Your task to perform on an android device: Add "usb-c to usb-b" to the cart on walmart.com, then select checkout. Image 0: 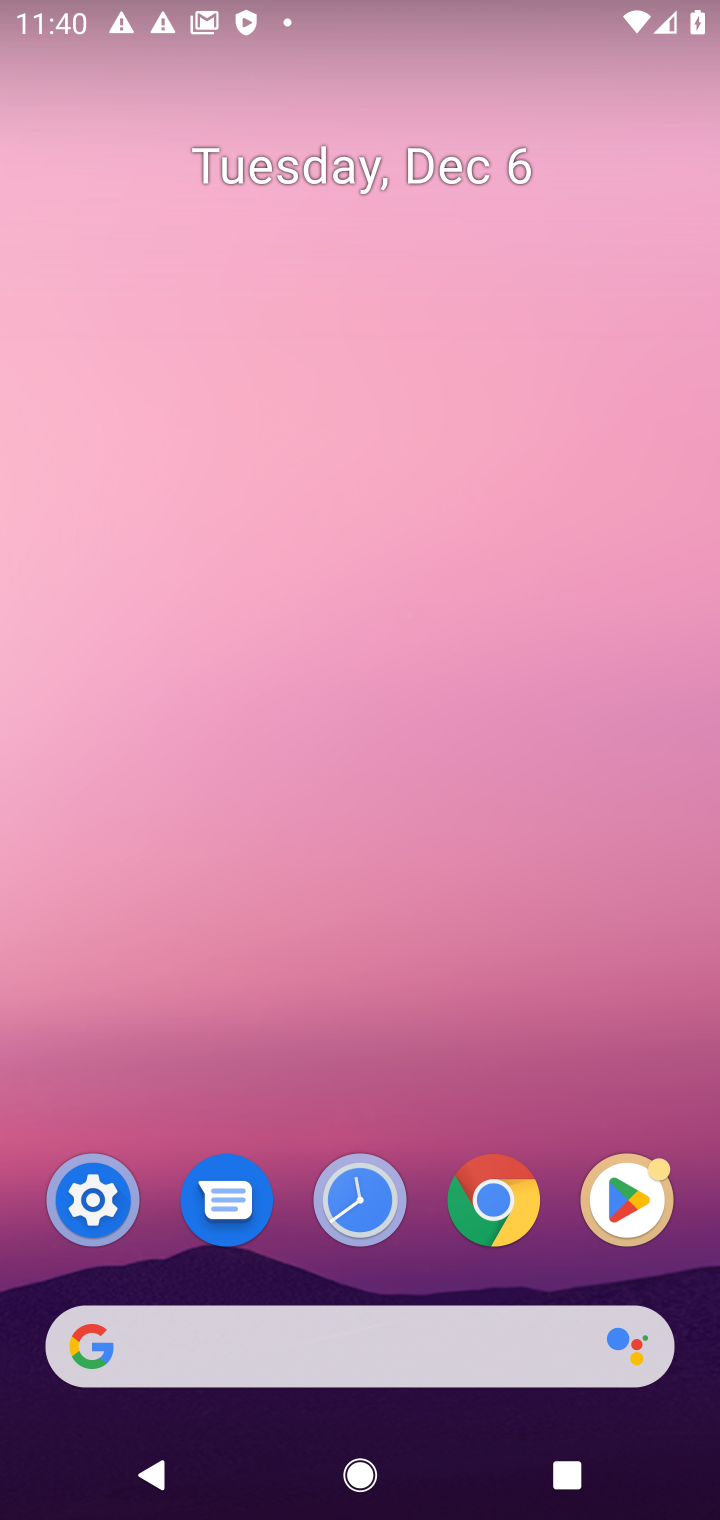
Step 0: click (327, 1374)
Your task to perform on an android device: Add "usb-c to usb-b" to the cart on walmart.com, then select checkout. Image 1: 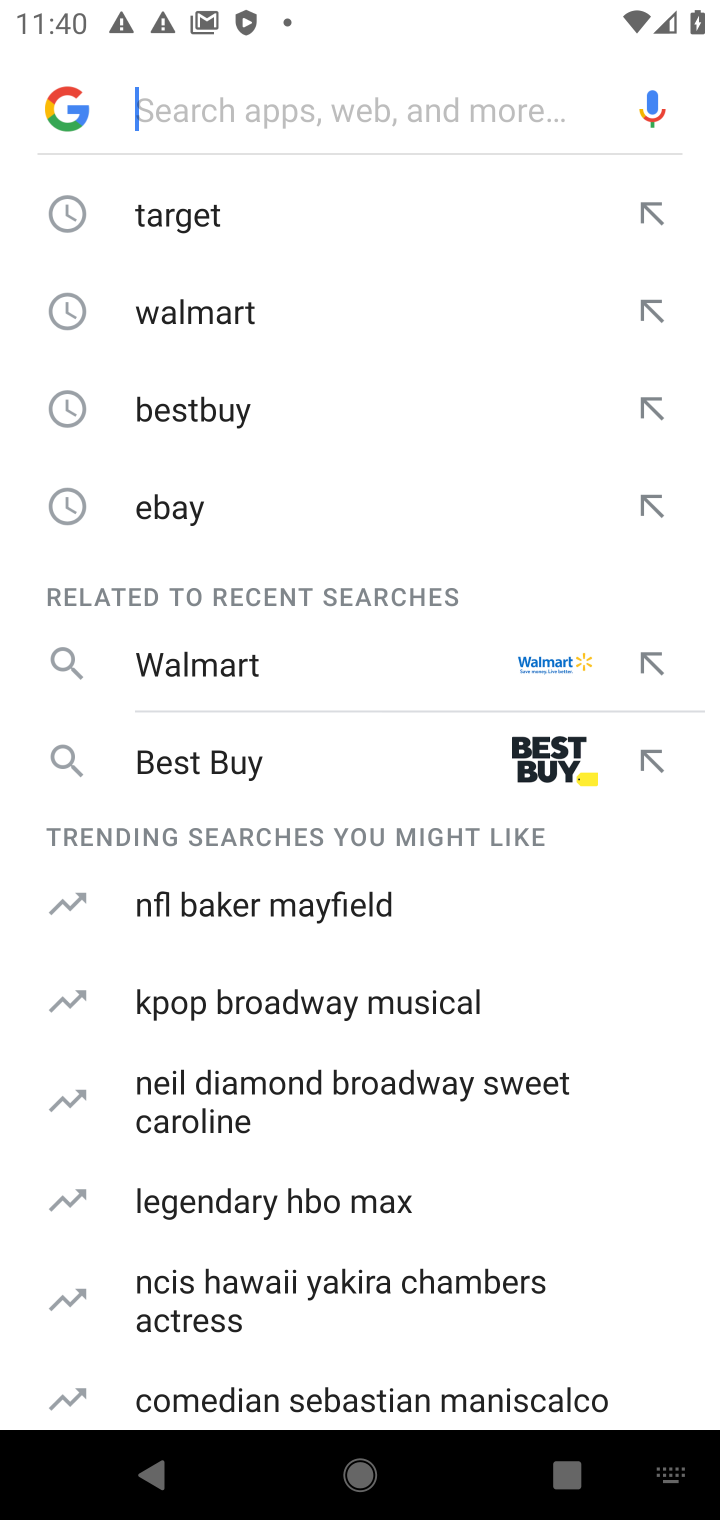
Step 1: type "walmart"
Your task to perform on an android device: Add "usb-c to usb-b" to the cart on walmart.com, then select checkout. Image 2: 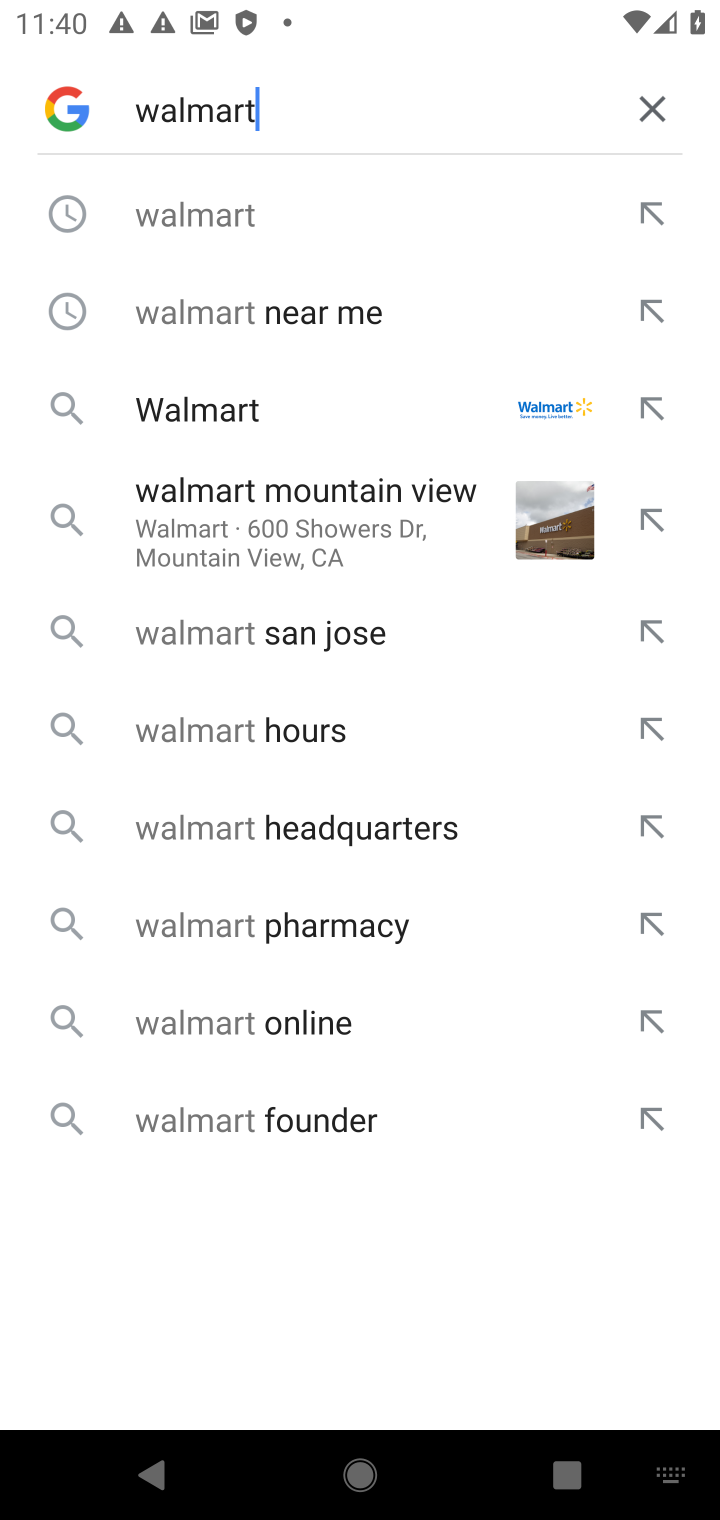
Step 2: click (292, 252)
Your task to perform on an android device: Add "usb-c to usb-b" to the cart on walmart.com, then select checkout. Image 3: 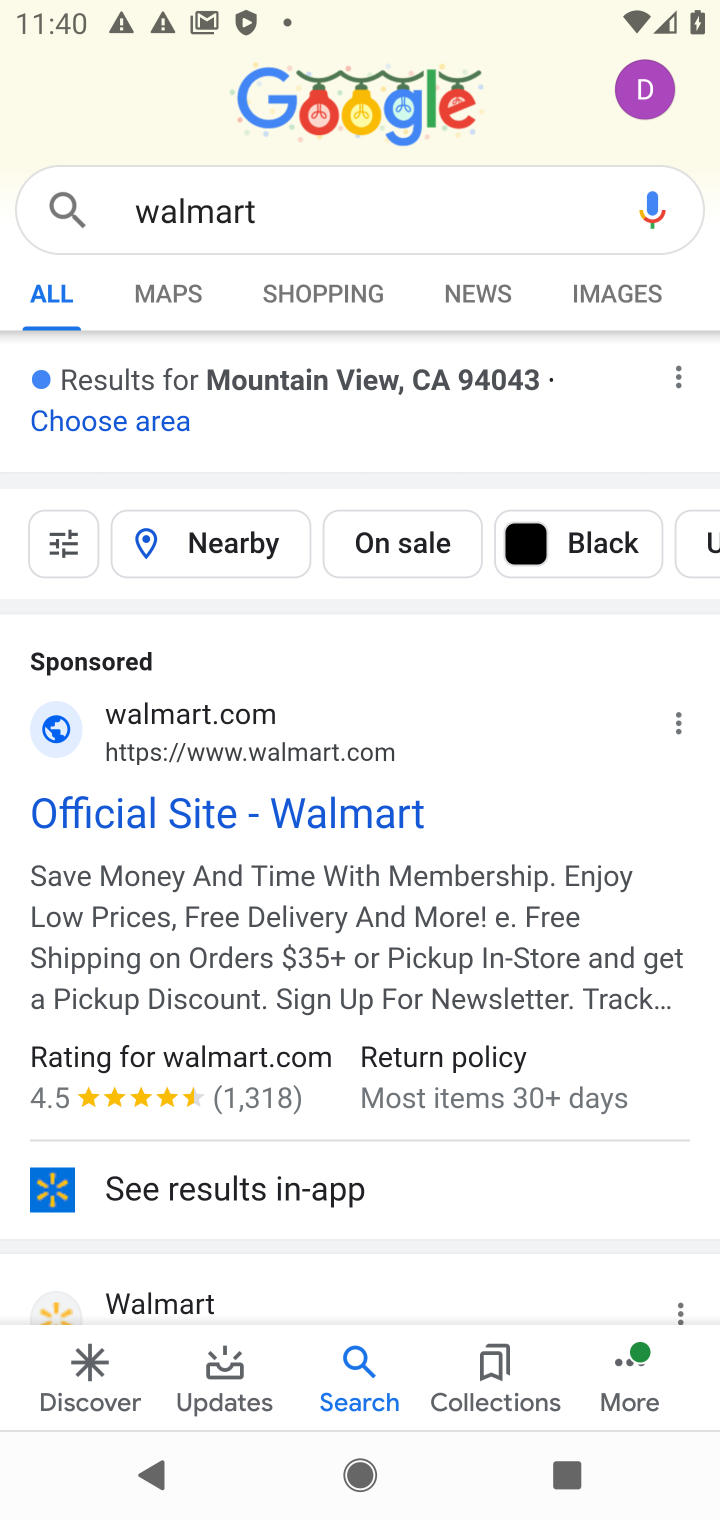
Step 3: click (356, 795)
Your task to perform on an android device: Add "usb-c to usb-b" to the cart on walmart.com, then select checkout. Image 4: 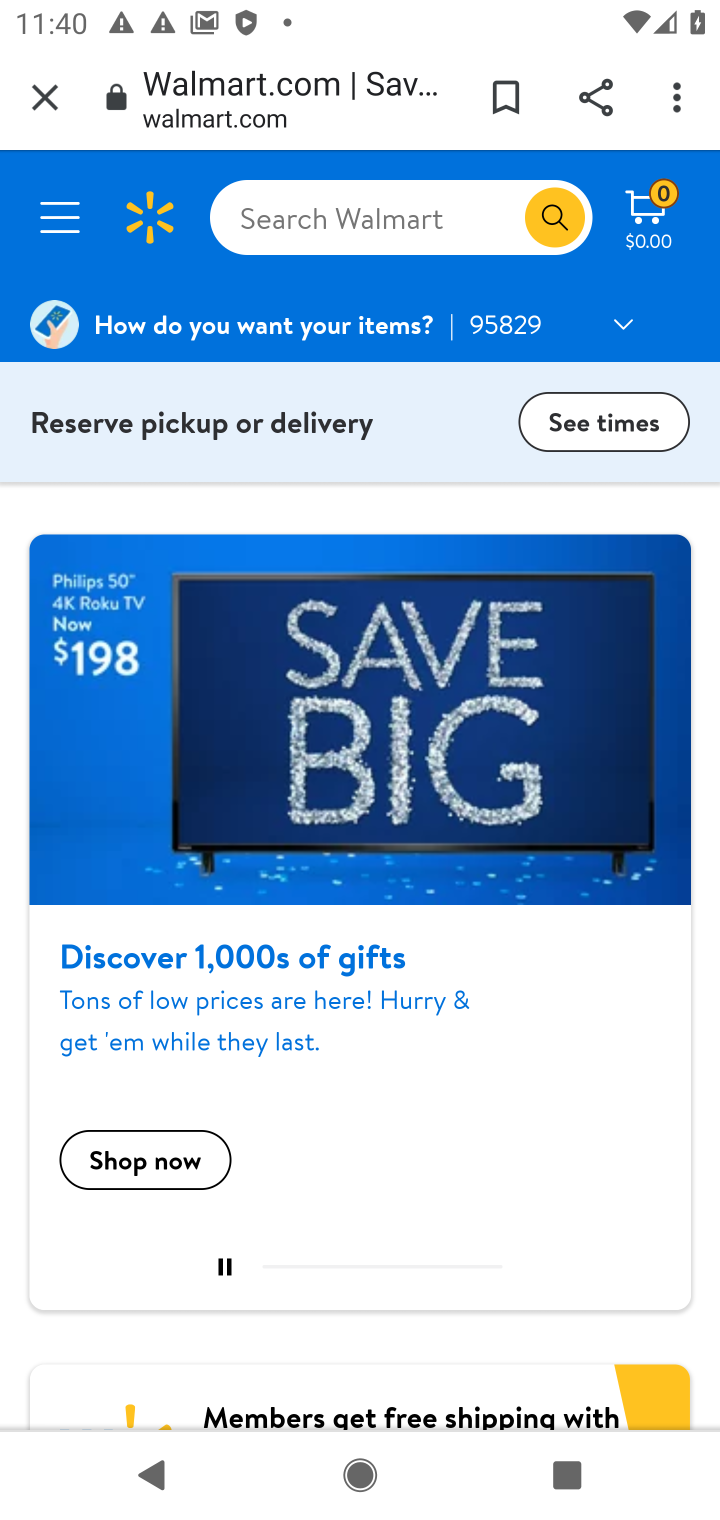
Step 4: task complete